Your task to perform on an android device: Open Yahoo.com Image 0: 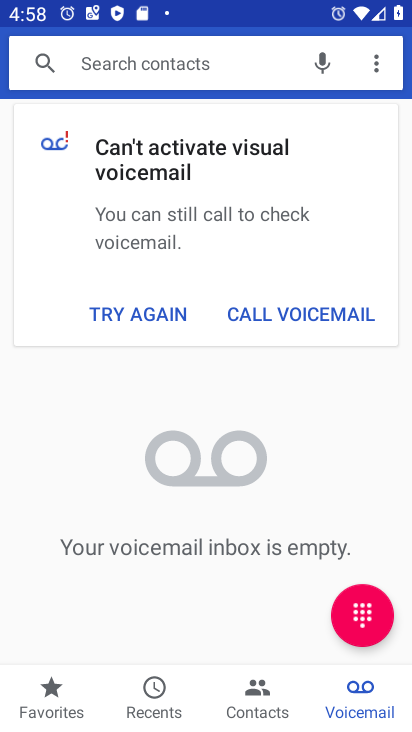
Step 0: press home button
Your task to perform on an android device: Open Yahoo.com Image 1: 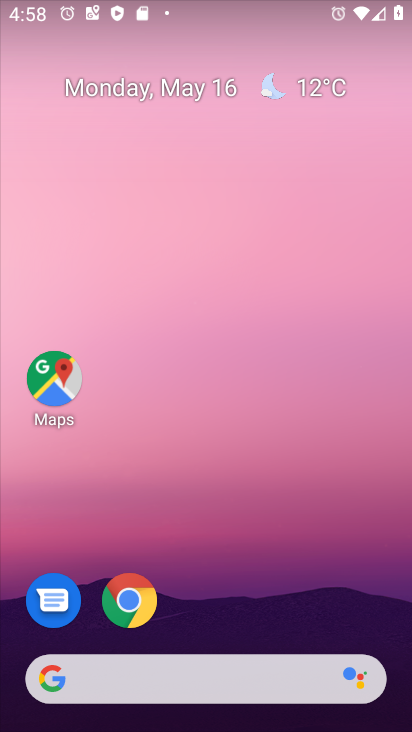
Step 1: drag from (194, 650) to (204, 255)
Your task to perform on an android device: Open Yahoo.com Image 2: 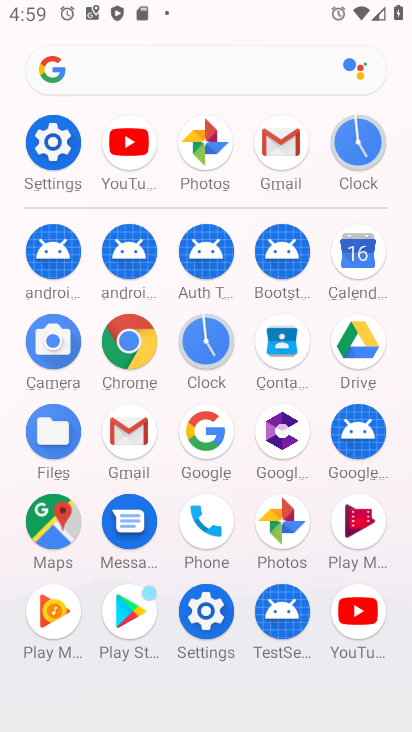
Step 2: click (126, 348)
Your task to perform on an android device: Open Yahoo.com Image 3: 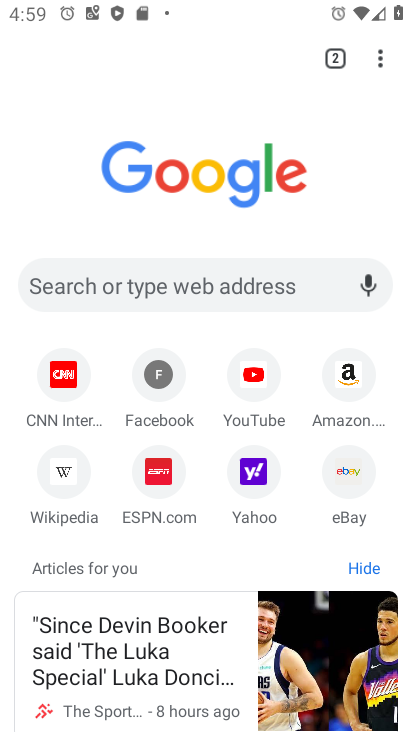
Step 3: click (259, 489)
Your task to perform on an android device: Open Yahoo.com Image 4: 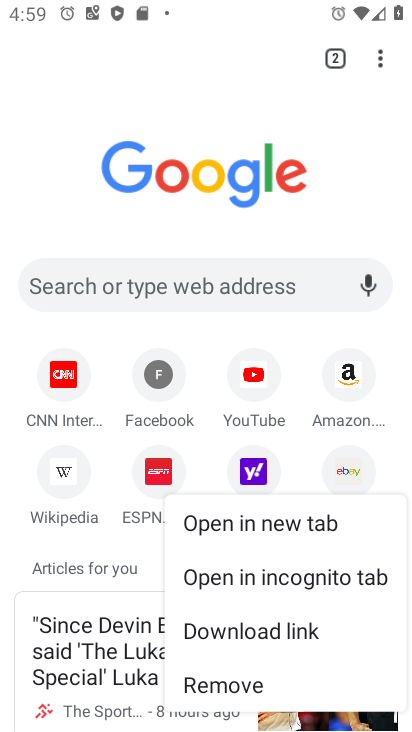
Step 4: click (259, 471)
Your task to perform on an android device: Open Yahoo.com Image 5: 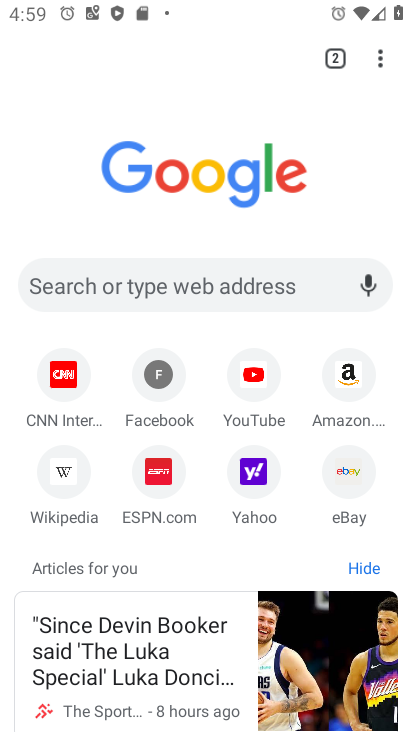
Step 5: click (247, 471)
Your task to perform on an android device: Open Yahoo.com Image 6: 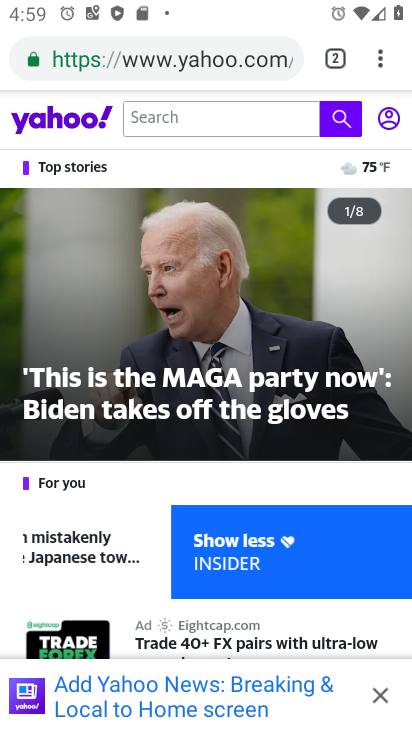
Step 6: task complete